Your task to perform on an android device: toggle priority inbox in the gmail app Image 0: 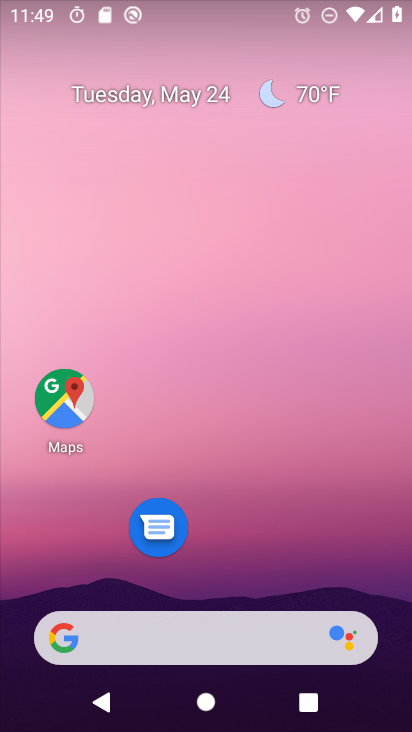
Step 0: drag from (257, 548) to (272, 110)
Your task to perform on an android device: toggle priority inbox in the gmail app Image 1: 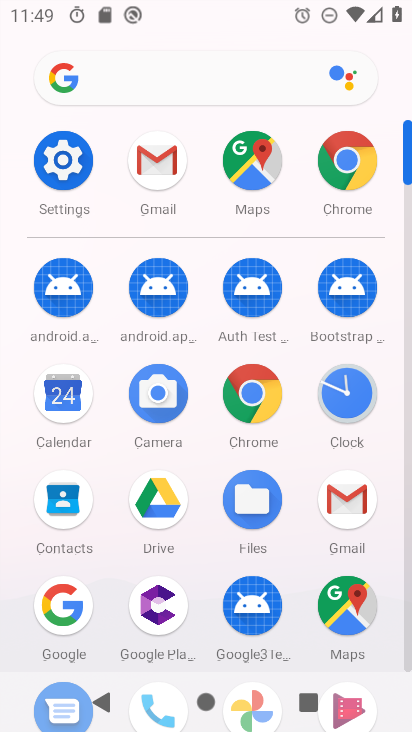
Step 1: click (152, 159)
Your task to perform on an android device: toggle priority inbox in the gmail app Image 2: 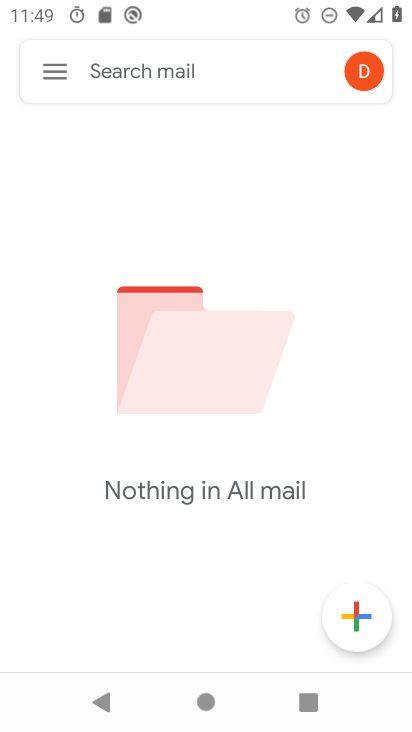
Step 2: click (58, 72)
Your task to perform on an android device: toggle priority inbox in the gmail app Image 3: 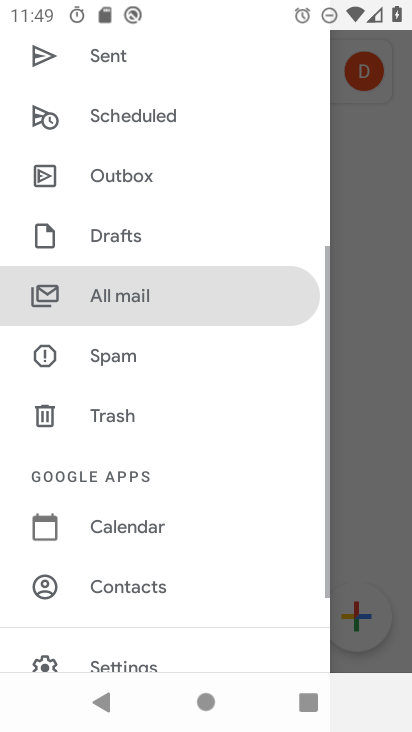
Step 3: drag from (172, 572) to (149, 173)
Your task to perform on an android device: toggle priority inbox in the gmail app Image 4: 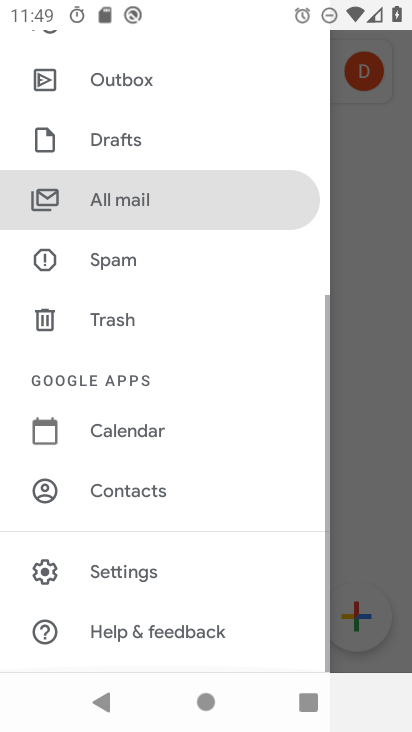
Step 4: click (148, 558)
Your task to perform on an android device: toggle priority inbox in the gmail app Image 5: 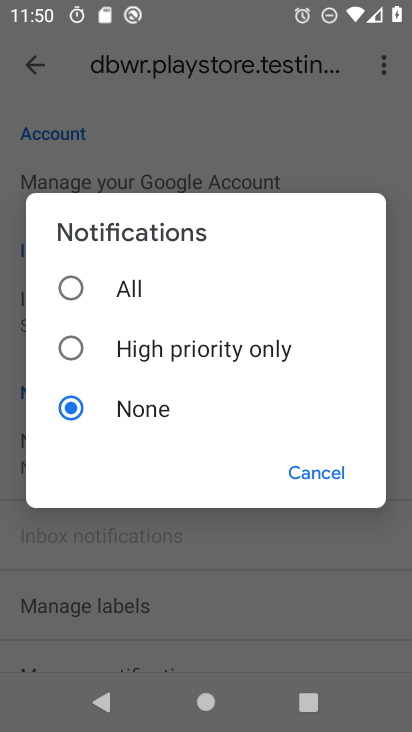
Step 5: click (318, 478)
Your task to perform on an android device: toggle priority inbox in the gmail app Image 6: 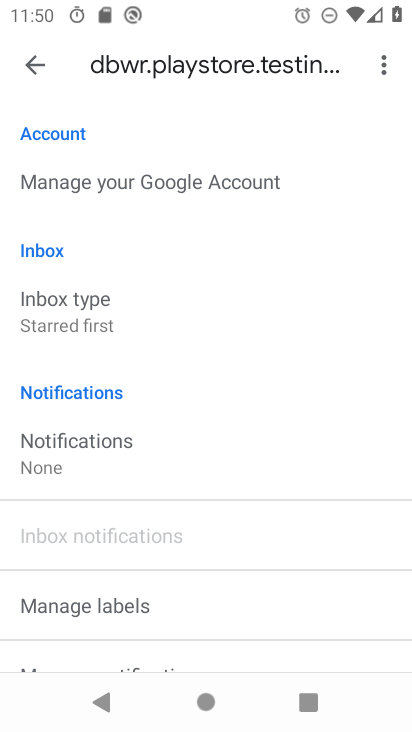
Step 6: drag from (115, 323) to (135, 433)
Your task to perform on an android device: toggle priority inbox in the gmail app Image 7: 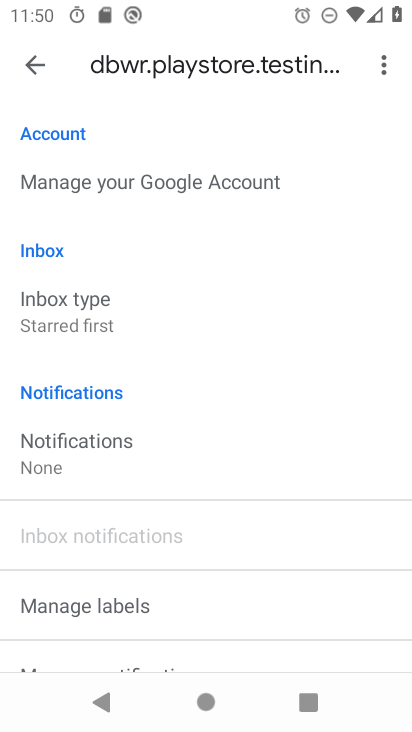
Step 7: click (114, 320)
Your task to perform on an android device: toggle priority inbox in the gmail app Image 8: 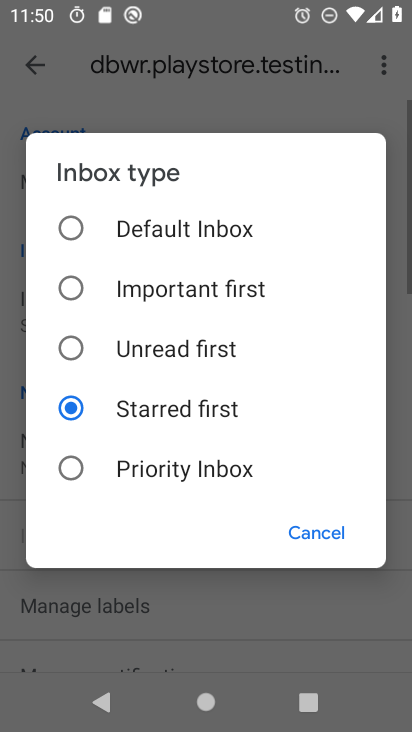
Step 8: click (72, 466)
Your task to perform on an android device: toggle priority inbox in the gmail app Image 9: 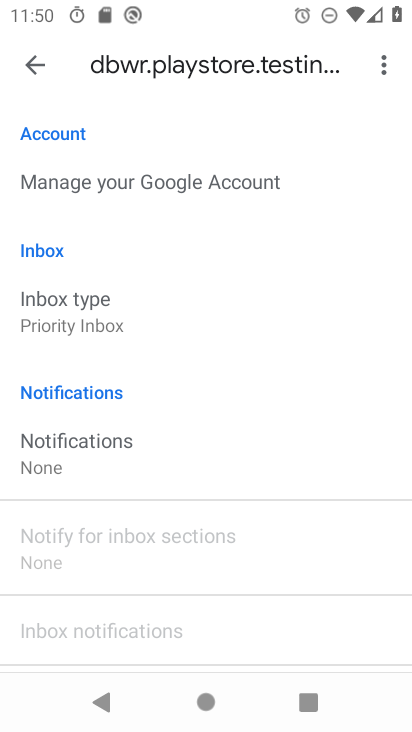
Step 9: task complete